Your task to perform on an android device: turn off picture-in-picture Image 0: 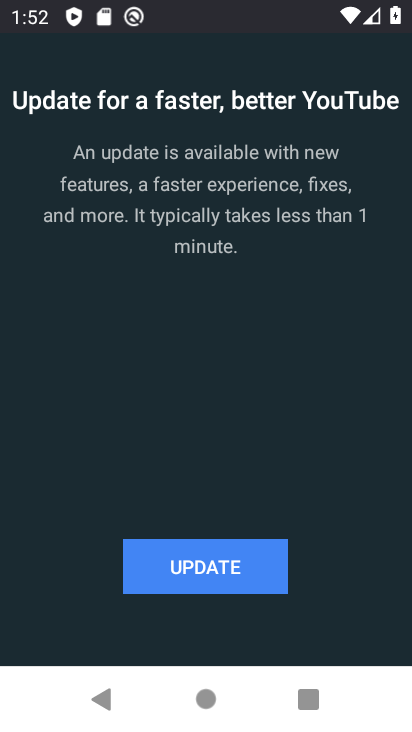
Step 0: press home button
Your task to perform on an android device: turn off picture-in-picture Image 1: 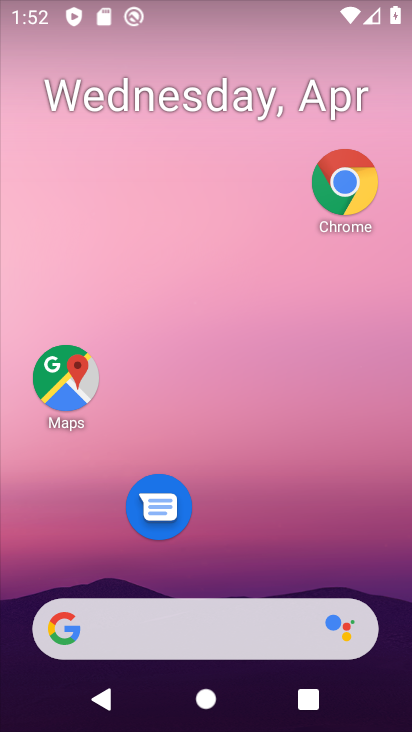
Step 1: click (346, 195)
Your task to perform on an android device: turn off picture-in-picture Image 2: 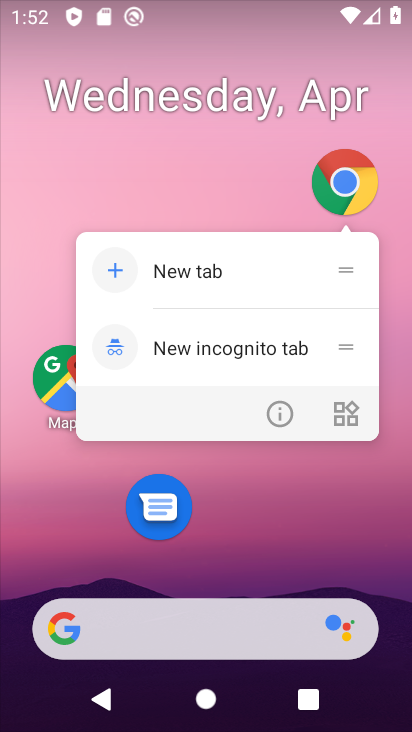
Step 2: click (280, 416)
Your task to perform on an android device: turn off picture-in-picture Image 3: 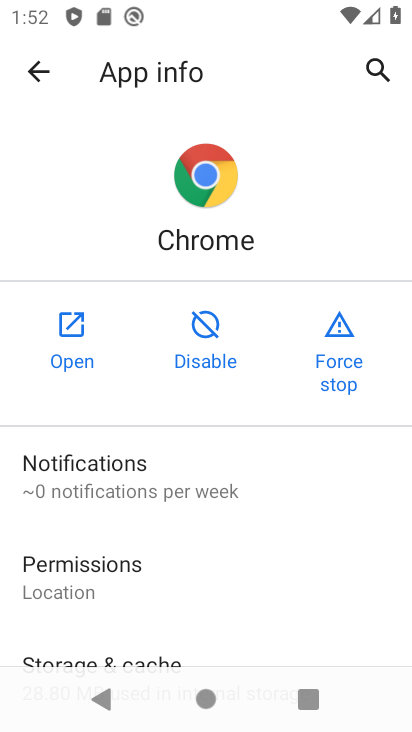
Step 3: drag from (242, 602) to (257, 31)
Your task to perform on an android device: turn off picture-in-picture Image 4: 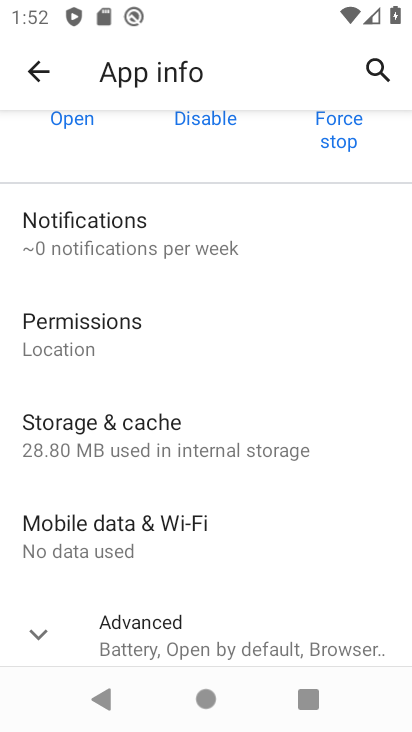
Step 4: click (259, 648)
Your task to perform on an android device: turn off picture-in-picture Image 5: 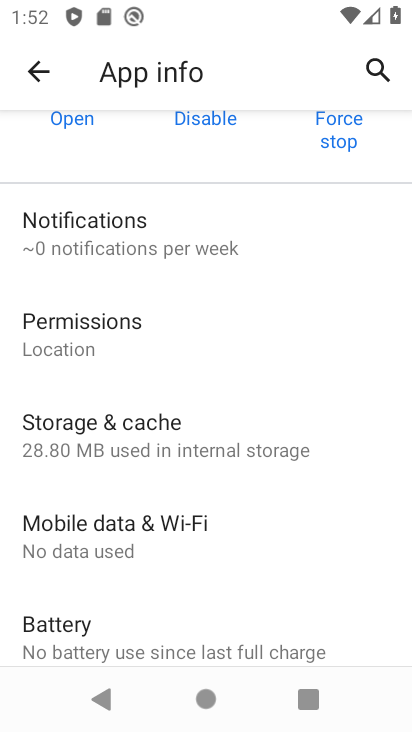
Step 5: drag from (275, 522) to (226, 226)
Your task to perform on an android device: turn off picture-in-picture Image 6: 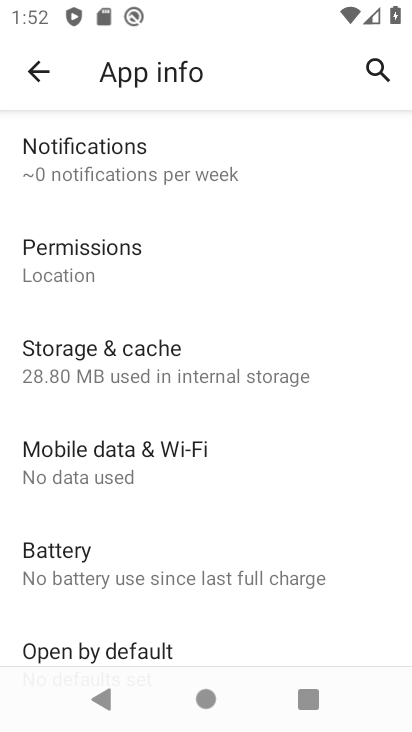
Step 6: drag from (237, 505) to (208, 251)
Your task to perform on an android device: turn off picture-in-picture Image 7: 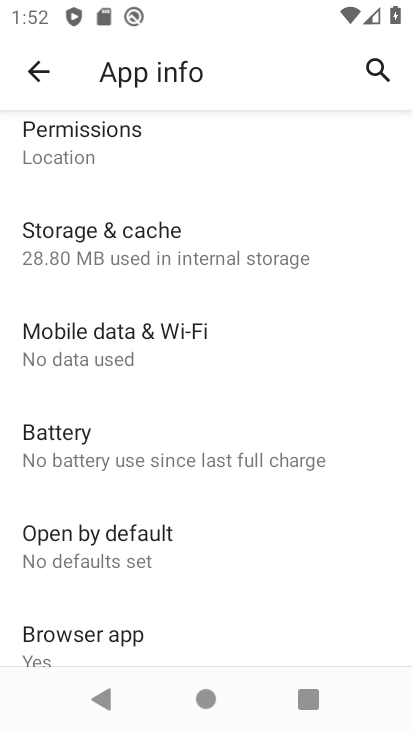
Step 7: drag from (114, 583) to (66, 66)
Your task to perform on an android device: turn off picture-in-picture Image 8: 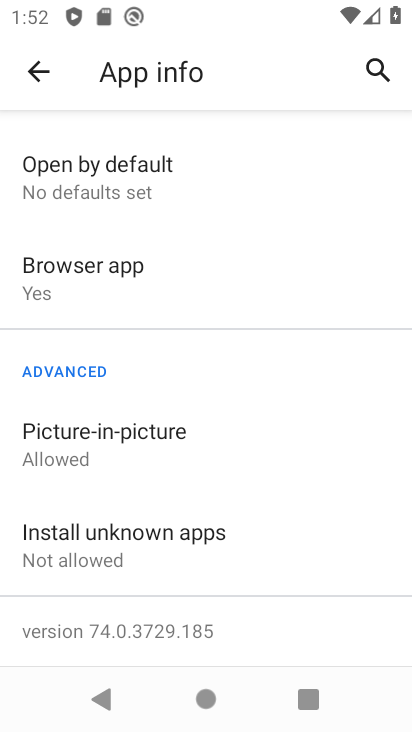
Step 8: click (162, 434)
Your task to perform on an android device: turn off picture-in-picture Image 9: 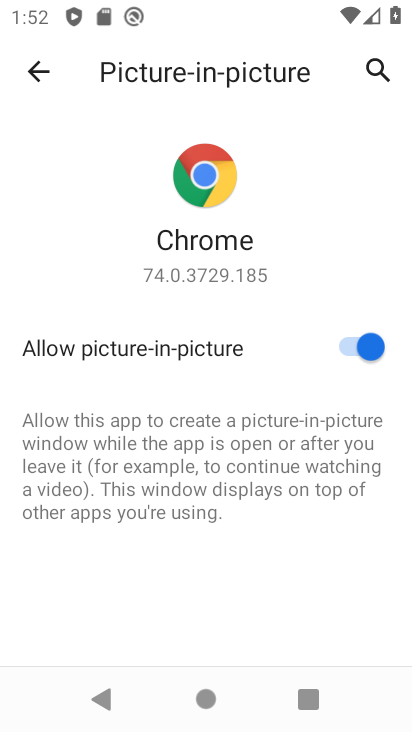
Step 9: click (356, 353)
Your task to perform on an android device: turn off picture-in-picture Image 10: 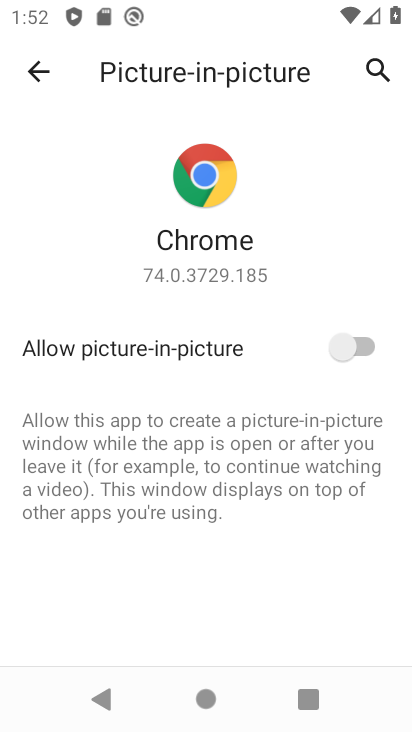
Step 10: task complete